Your task to perform on an android device: Show me the alarms in the clock app Image 0: 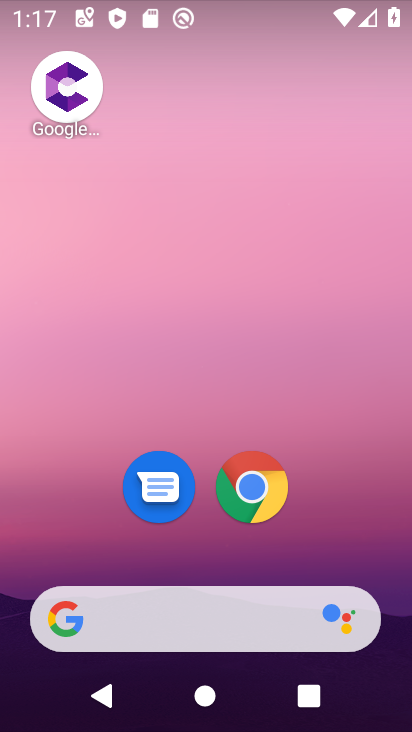
Step 0: drag from (223, 572) to (210, 0)
Your task to perform on an android device: Show me the alarms in the clock app Image 1: 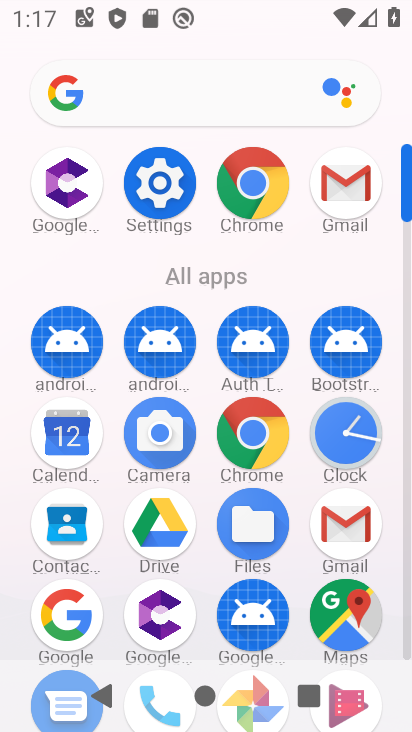
Step 1: click (352, 430)
Your task to perform on an android device: Show me the alarms in the clock app Image 2: 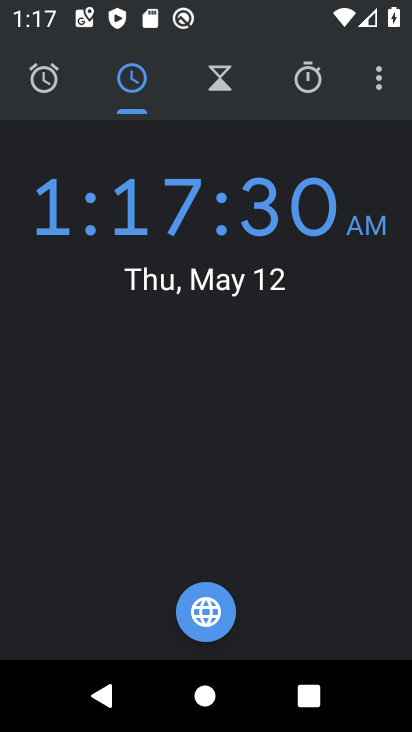
Step 2: click (57, 90)
Your task to perform on an android device: Show me the alarms in the clock app Image 3: 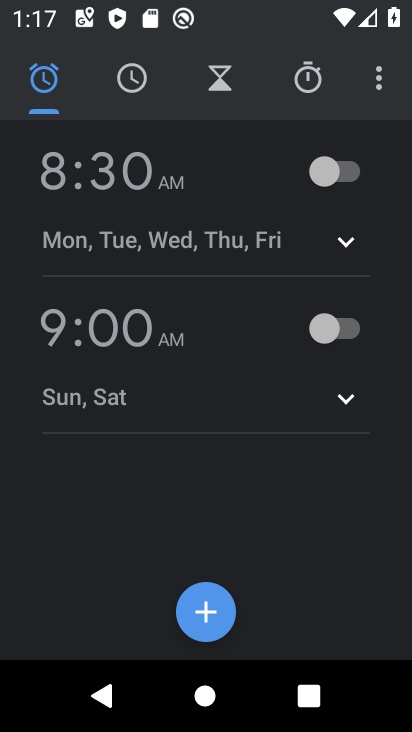
Step 3: task complete